Your task to perform on an android device: Open privacy settings Image 0: 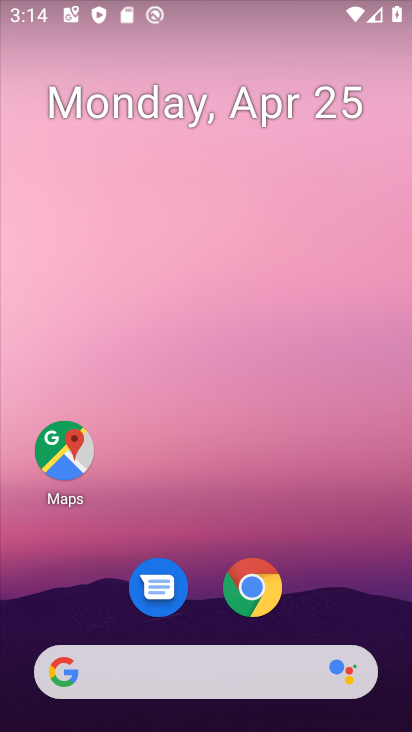
Step 0: click (256, 592)
Your task to perform on an android device: Open privacy settings Image 1: 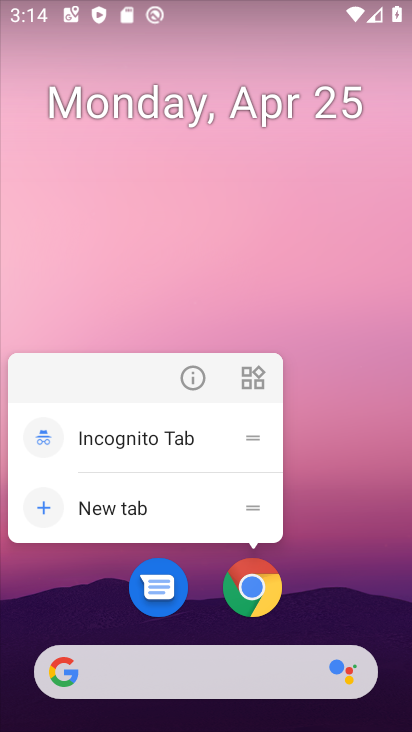
Step 1: click (256, 592)
Your task to perform on an android device: Open privacy settings Image 2: 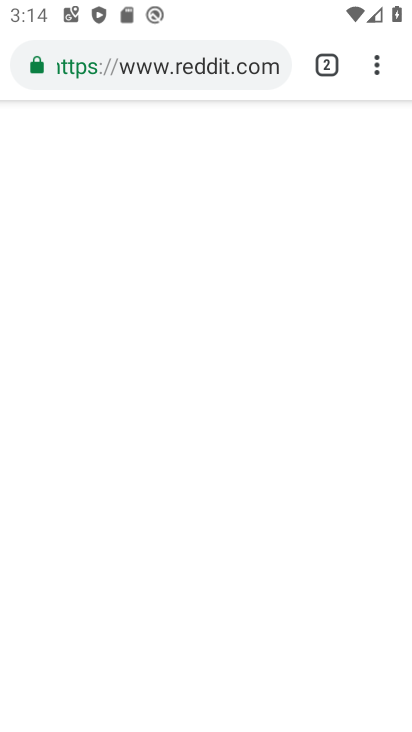
Step 2: click (373, 64)
Your task to perform on an android device: Open privacy settings Image 3: 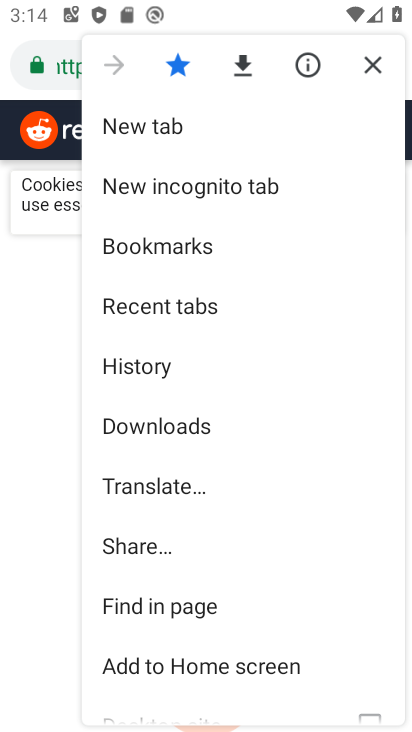
Step 3: drag from (217, 382) to (237, 160)
Your task to perform on an android device: Open privacy settings Image 4: 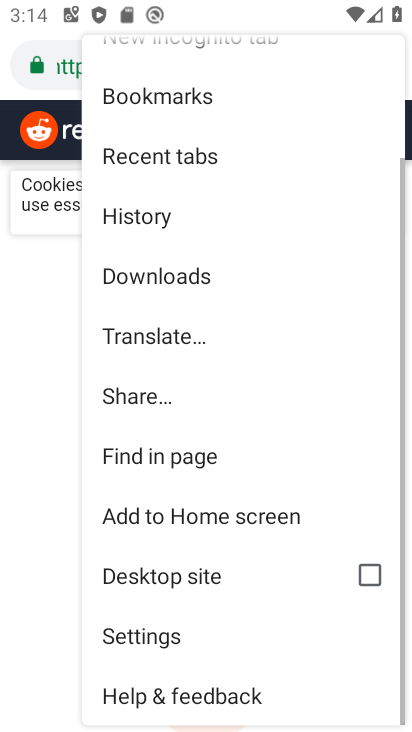
Step 4: click (176, 629)
Your task to perform on an android device: Open privacy settings Image 5: 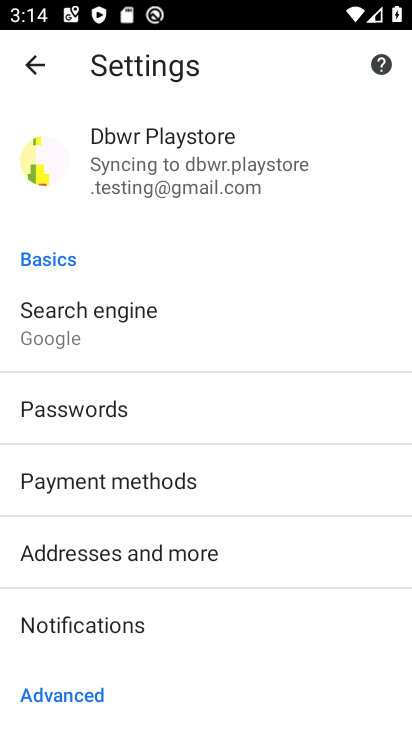
Step 5: drag from (177, 594) to (188, 271)
Your task to perform on an android device: Open privacy settings Image 6: 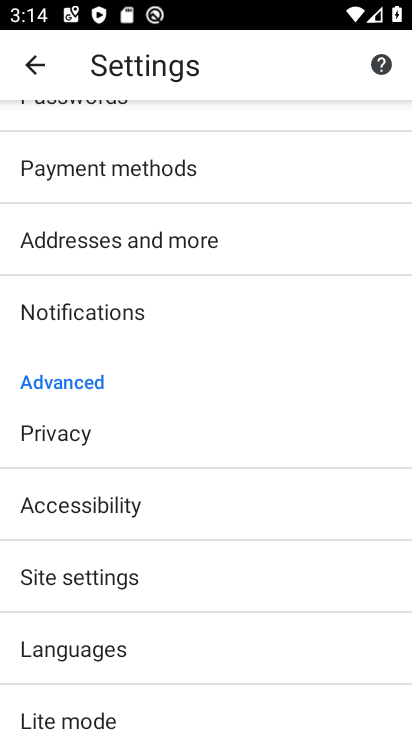
Step 6: click (77, 423)
Your task to perform on an android device: Open privacy settings Image 7: 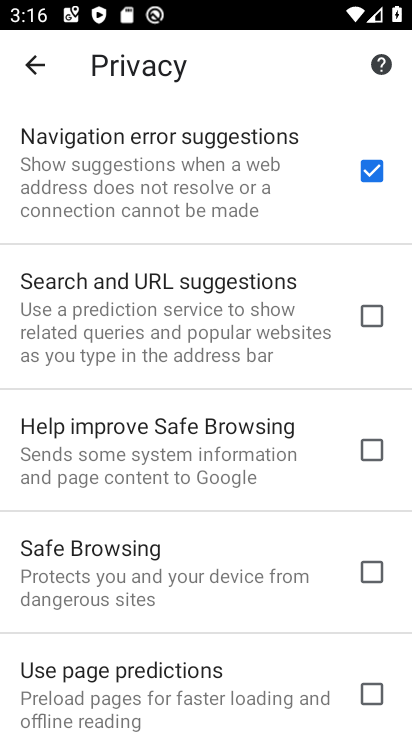
Step 7: task complete